Your task to perform on an android device: Go to Amazon Image 0: 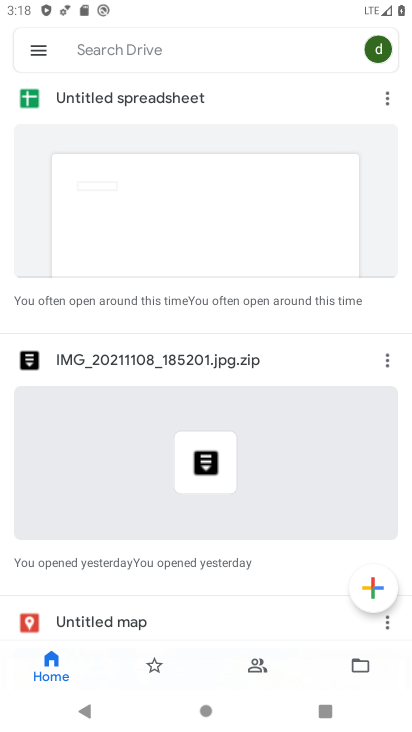
Step 0: press home button
Your task to perform on an android device: Go to Amazon Image 1: 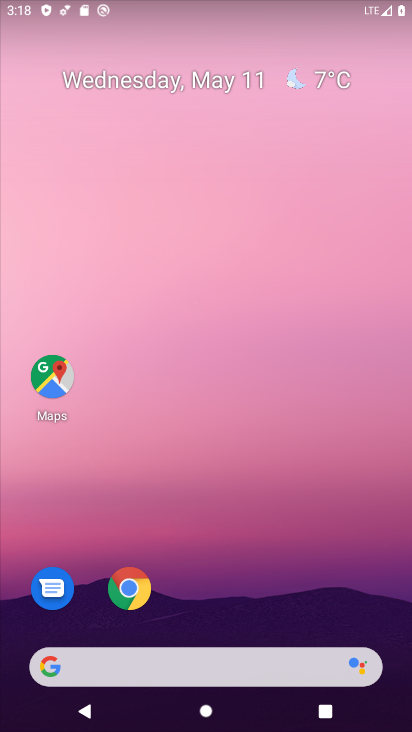
Step 1: click (129, 591)
Your task to perform on an android device: Go to Amazon Image 2: 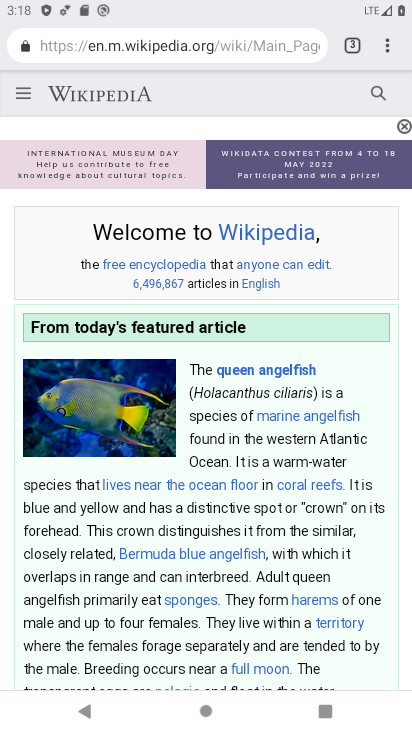
Step 2: click (387, 52)
Your task to perform on an android device: Go to Amazon Image 3: 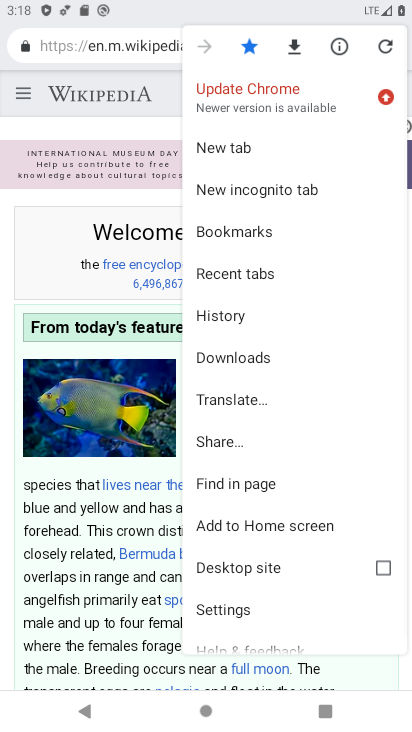
Step 3: click (215, 148)
Your task to perform on an android device: Go to Amazon Image 4: 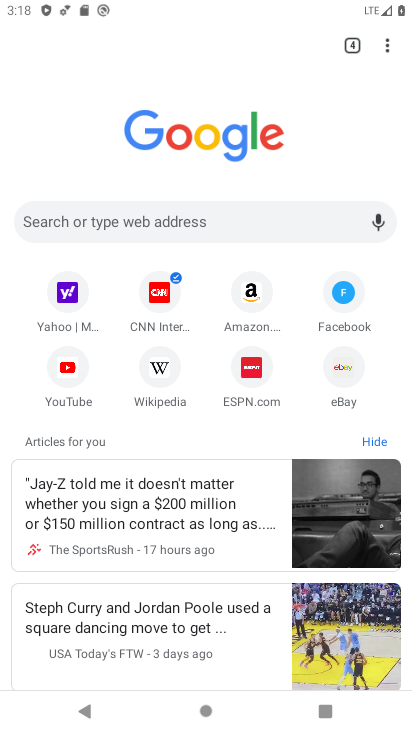
Step 4: click (254, 301)
Your task to perform on an android device: Go to Amazon Image 5: 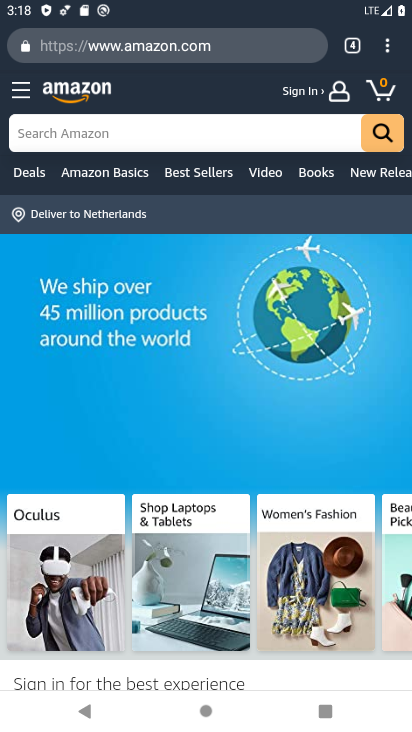
Step 5: task complete